Your task to perform on an android device: What's on my calendar today? Image 0: 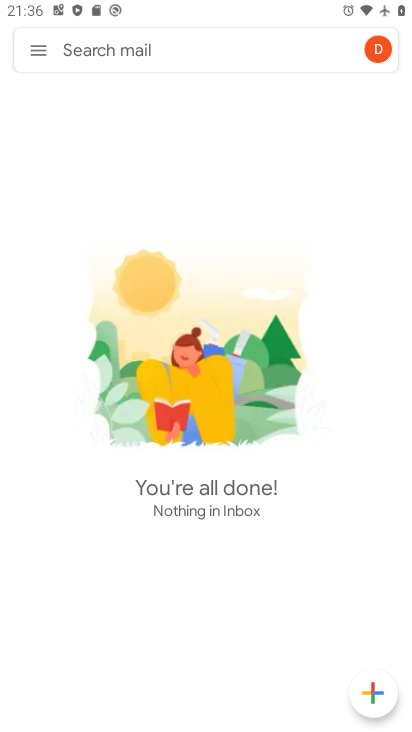
Step 0: press home button
Your task to perform on an android device: What's on my calendar today? Image 1: 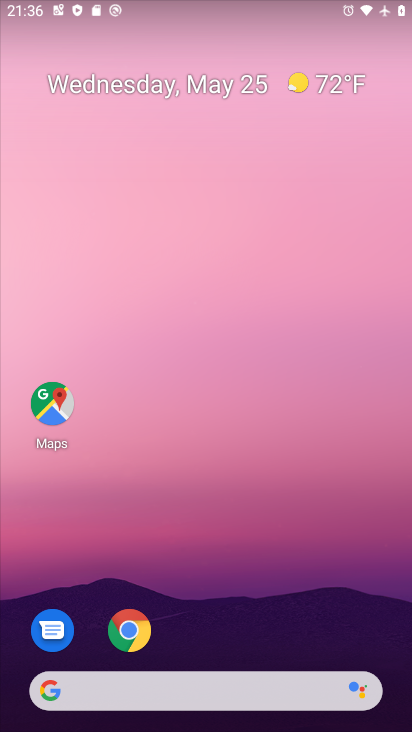
Step 1: drag from (218, 649) to (241, 215)
Your task to perform on an android device: What's on my calendar today? Image 2: 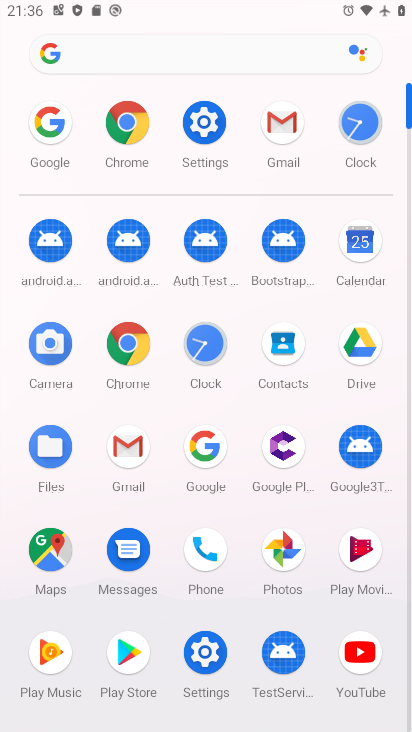
Step 2: click (356, 232)
Your task to perform on an android device: What's on my calendar today? Image 3: 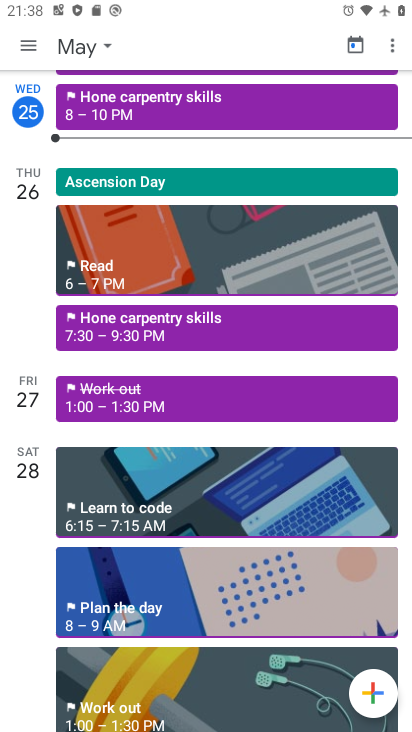
Step 3: press home button
Your task to perform on an android device: What's on my calendar today? Image 4: 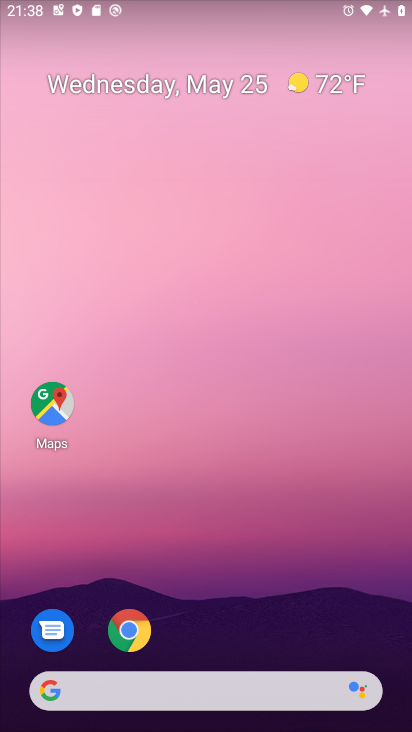
Step 4: drag from (233, 641) to (222, 155)
Your task to perform on an android device: What's on my calendar today? Image 5: 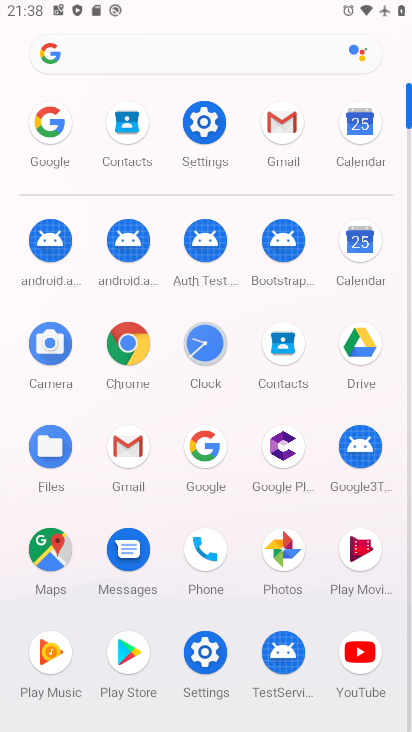
Step 5: click (363, 252)
Your task to perform on an android device: What's on my calendar today? Image 6: 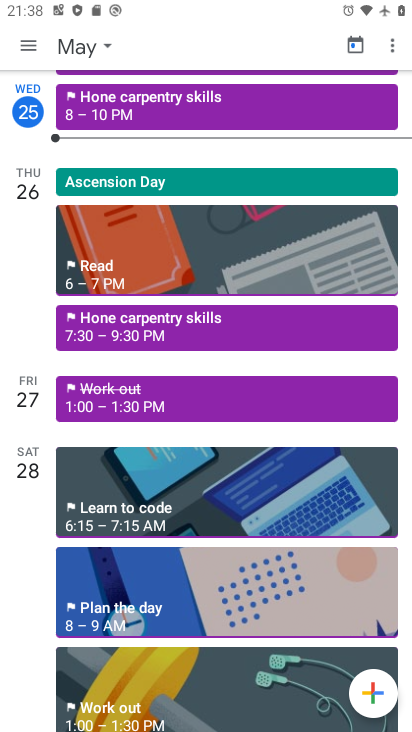
Step 6: click (89, 40)
Your task to perform on an android device: What's on my calendar today? Image 7: 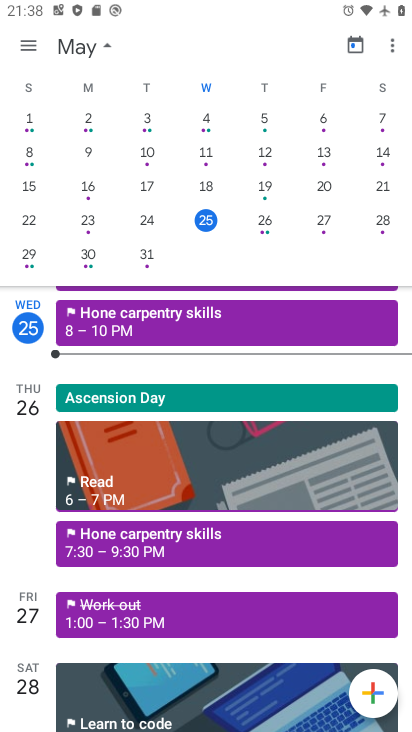
Step 7: click (213, 213)
Your task to perform on an android device: What's on my calendar today? Image 8: 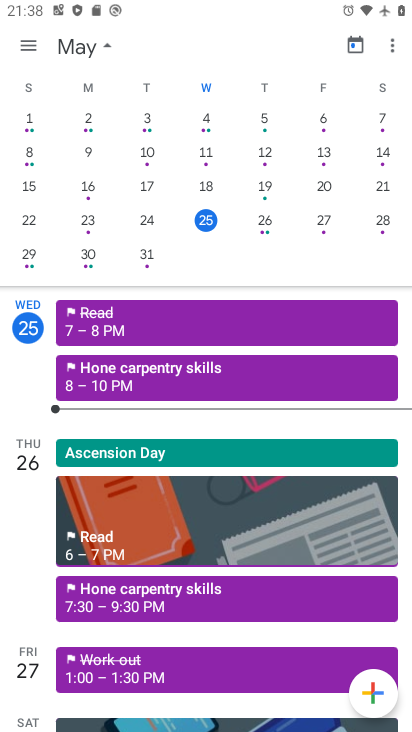
Step 8: task complete